Your task to perform on an android device: install app "Life360: Find Family & Friends" Image 0: 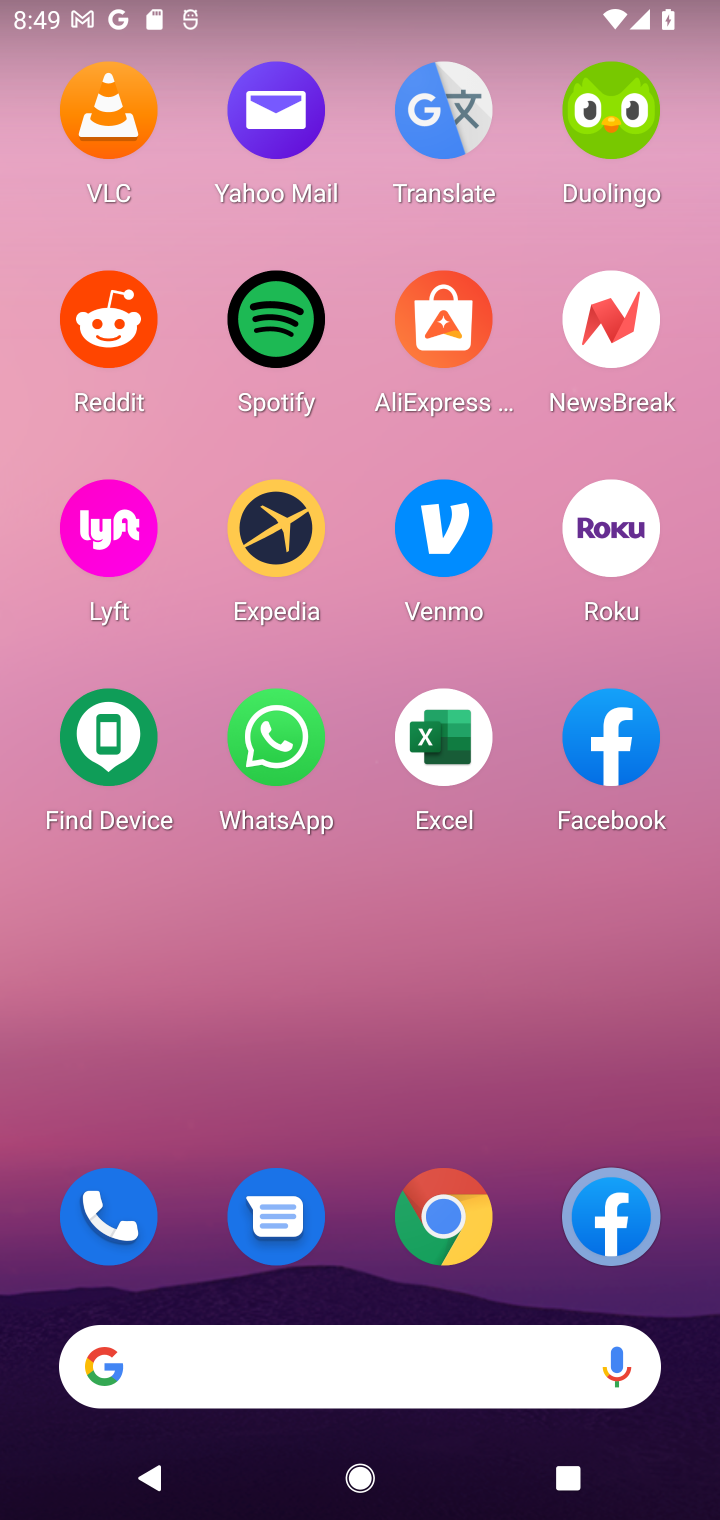
Step 0: press home button
Your task to perform on an android device: install app "Life360: Find Family & Friends" Image 1: 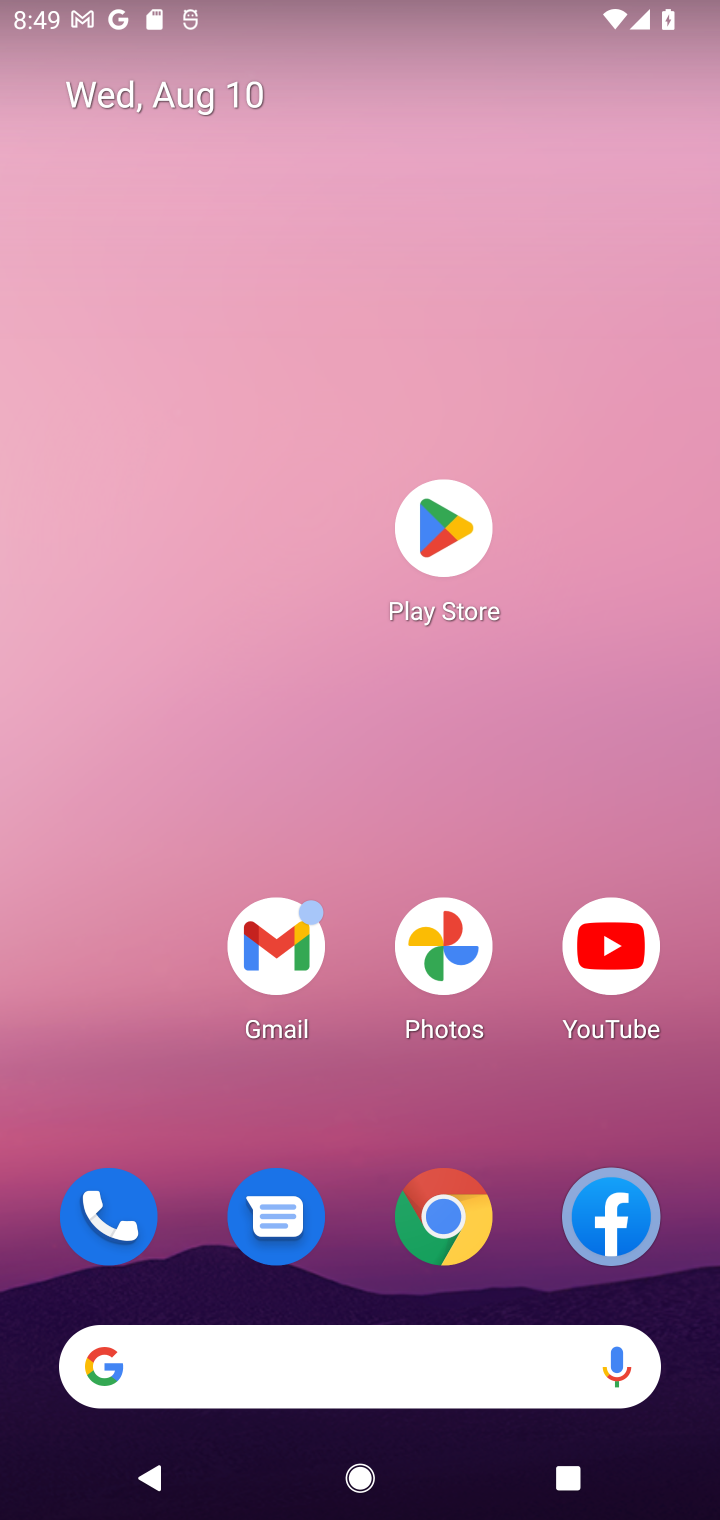
Step 1: click (441, 540)
Your task to perform on an android device: install app "Life360: Find Family & Friends" Image 2: 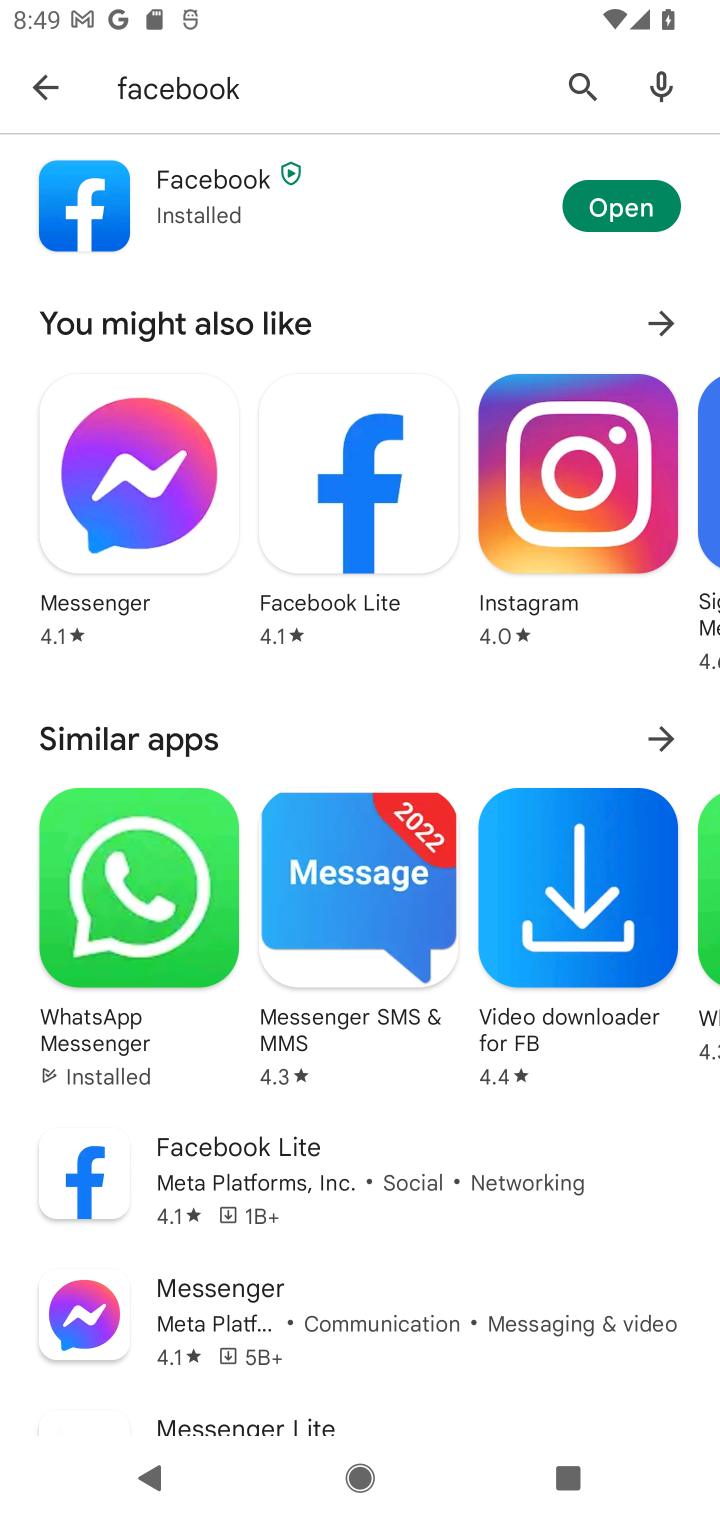
Step 2: click (563, 70)
Your task to perform on an android device: install app "Life360: Find Family & Friends" Image 3: 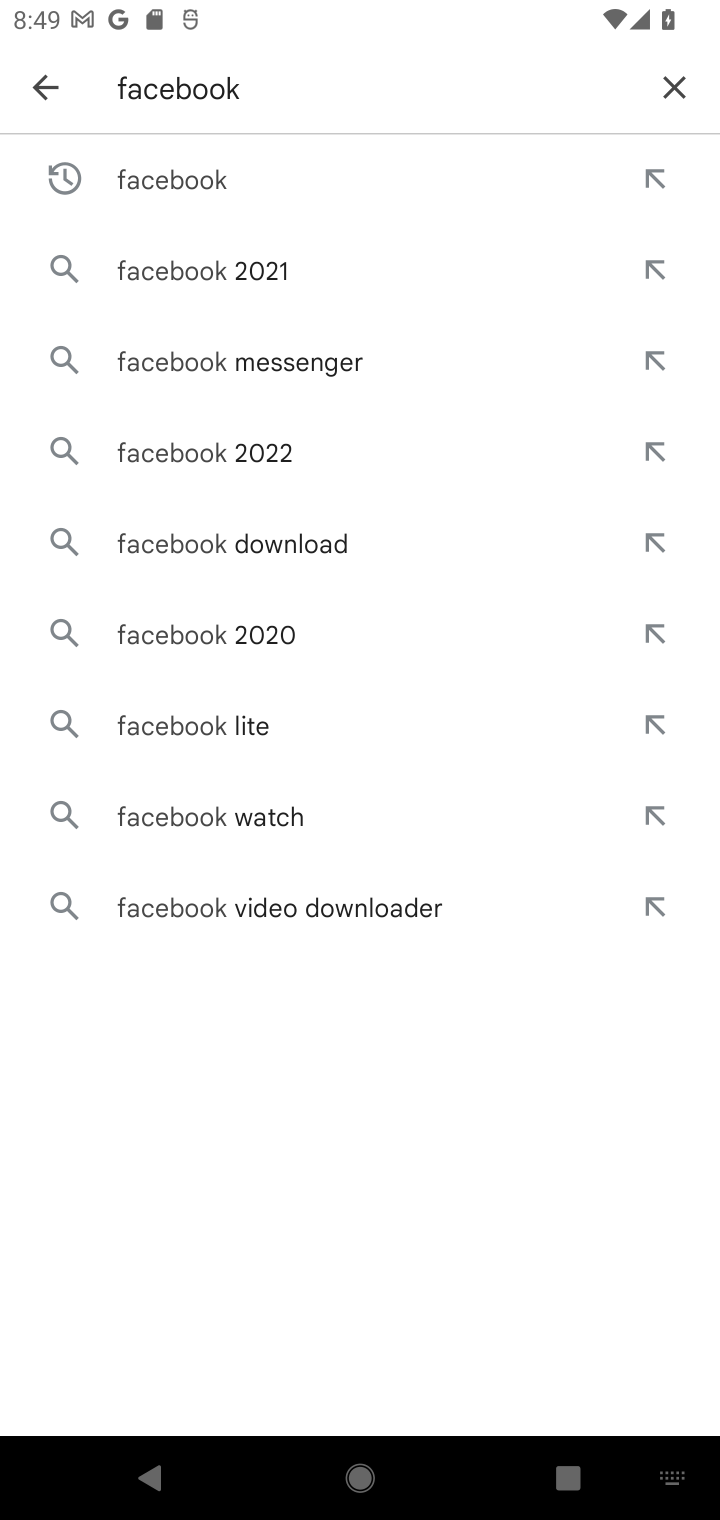
Step 3: click (671, 85)
Your task to perform on an android device: install app "Life360: Find Family & Friends" Image 4: 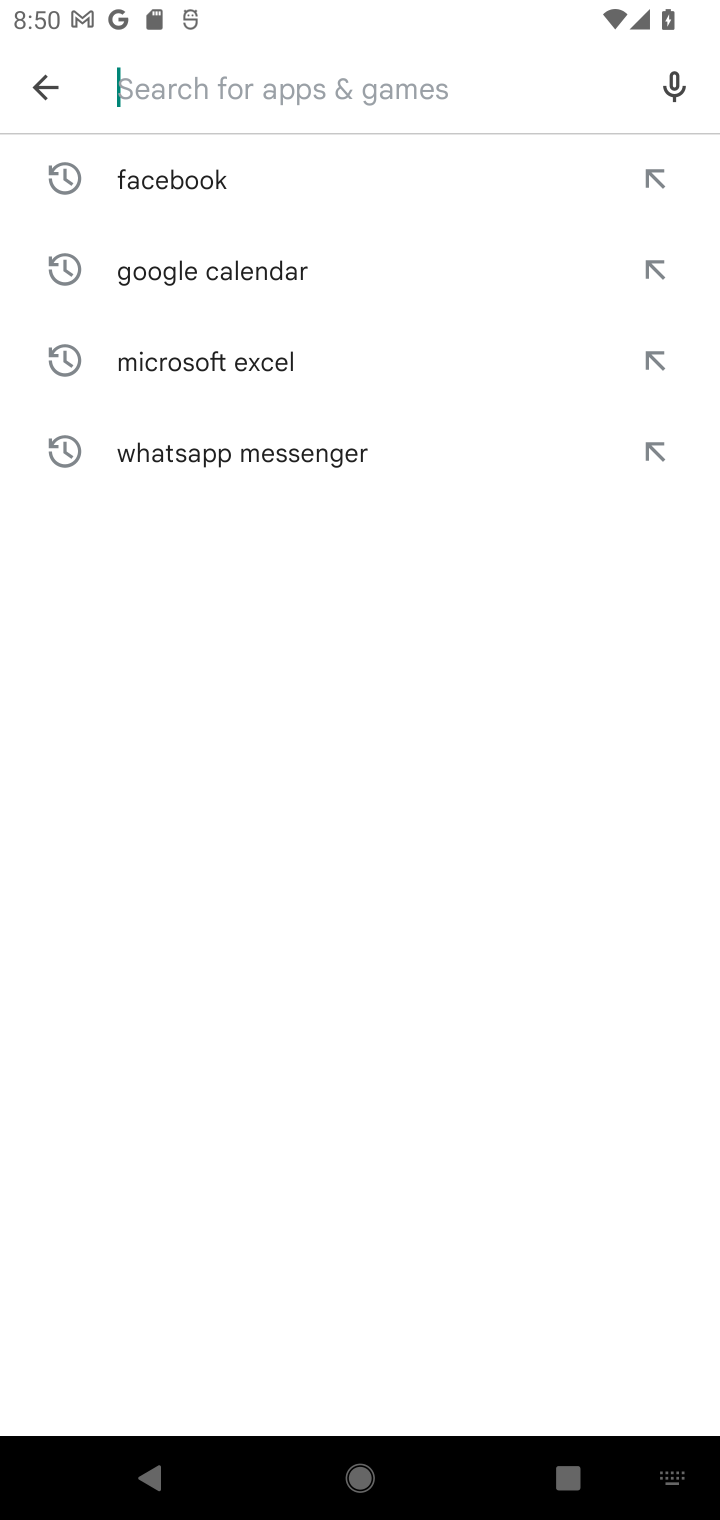
Step 4: type "Life360: Find Family & Friends"
Your task to perform on an android device: install app "Life360: Find Family & Friends" Image 5: 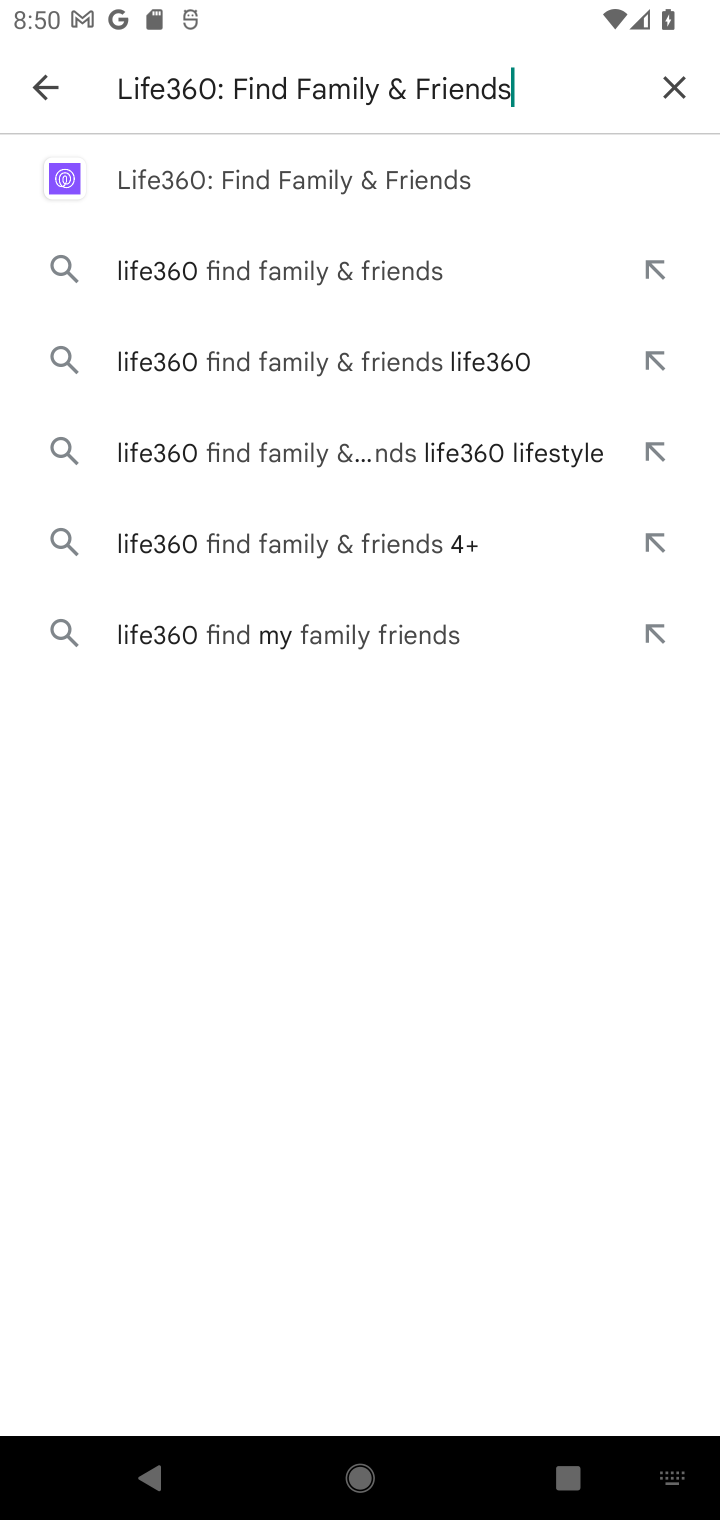
Step 5: click (369, 176)
Your task to perform on an android device: install app "Life360: Find Family & Friends" Image 6: 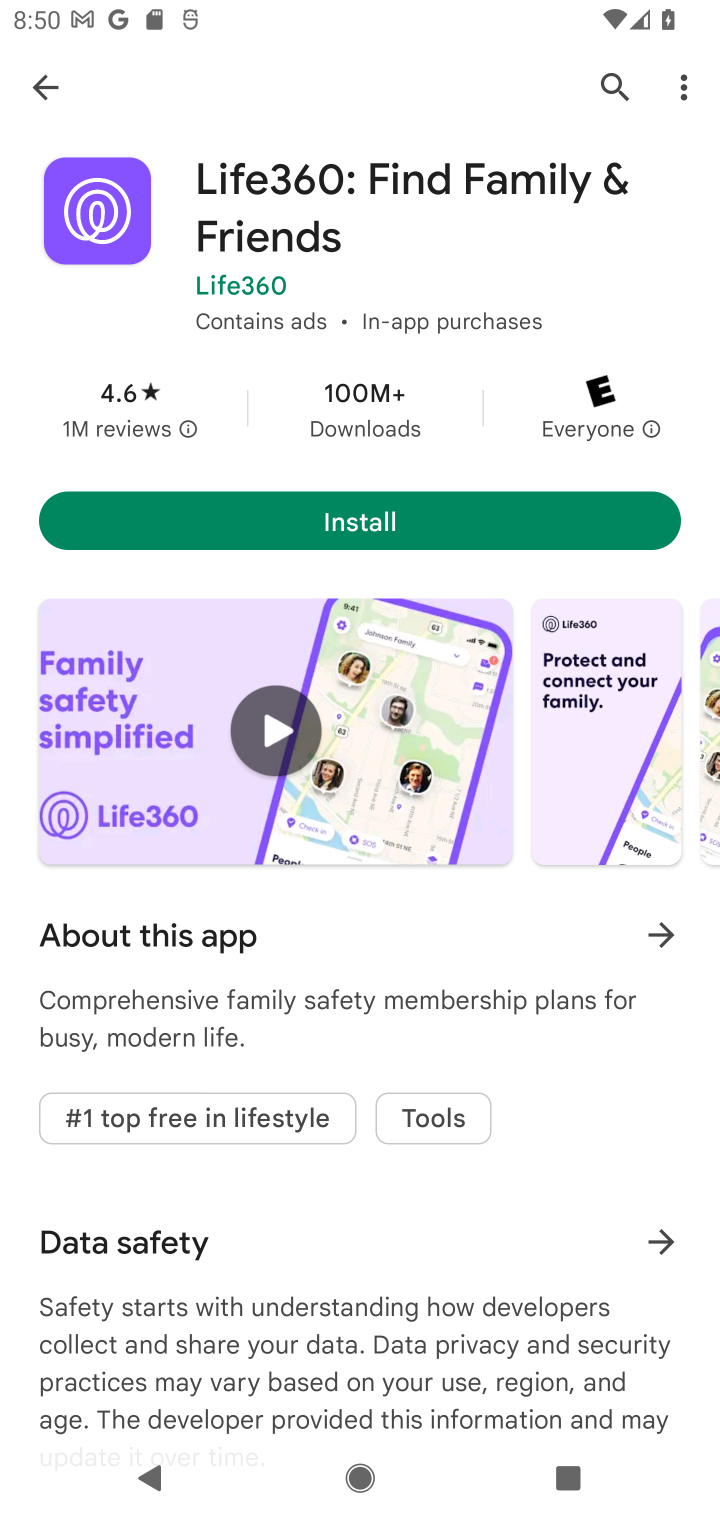
Step 6: click (398, 510)
Your task to perform on an android device: install app "Life360: Find Family & Friends" Image 7: 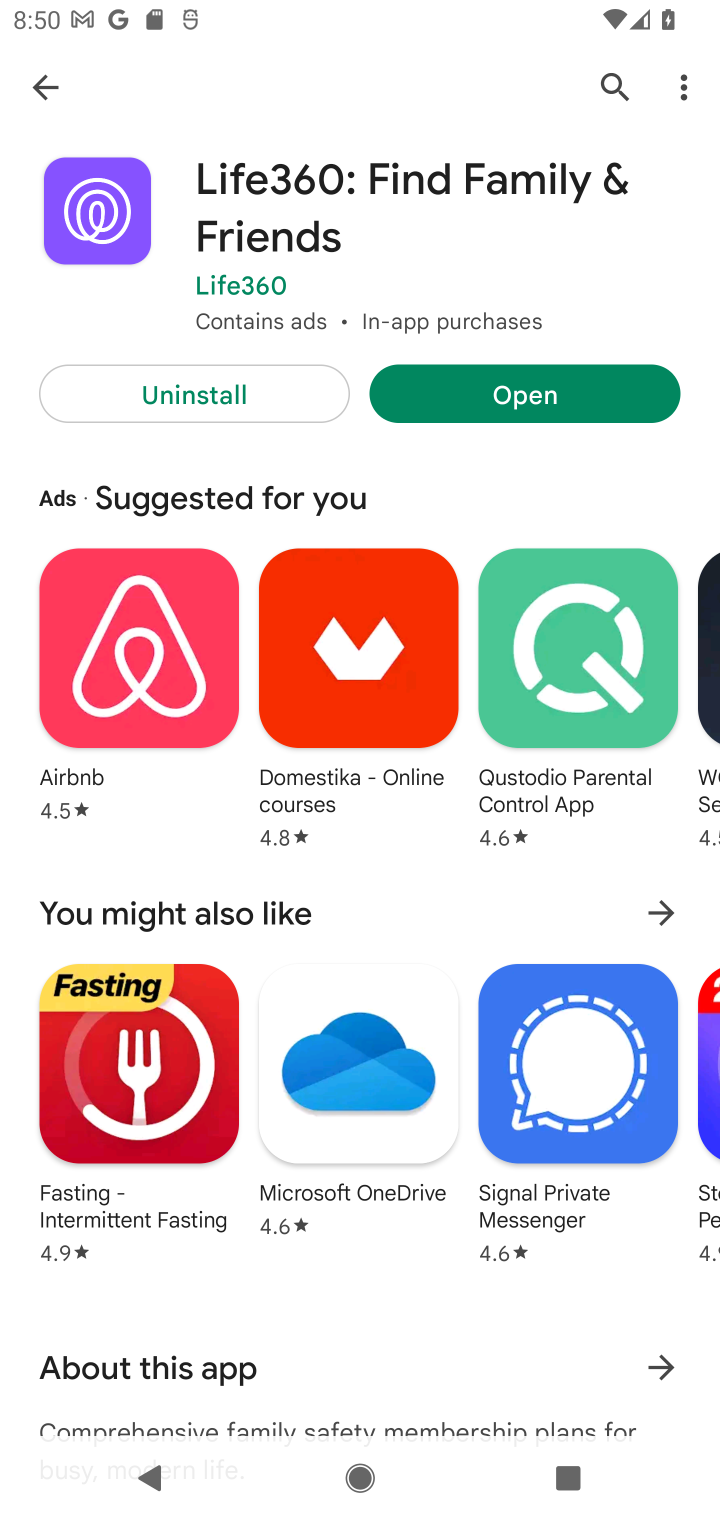
Step 7: task complete